Your task to perform on an android device: change text size in settings app Image 0: 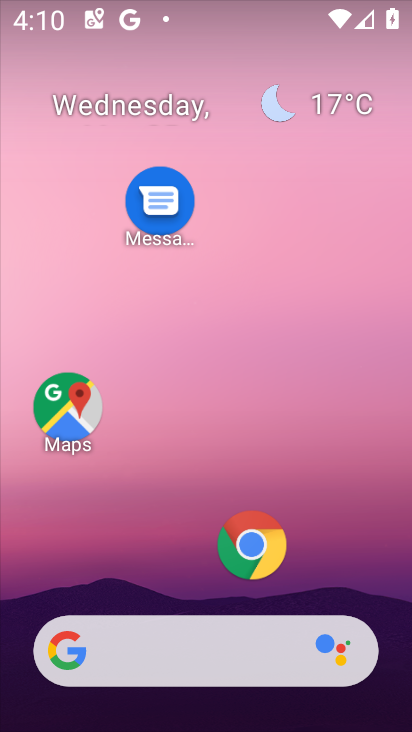
Step 0: drag from (335, 551) to (180, 42)
Your task to perform on an android device: change text size in settings app Image 1: 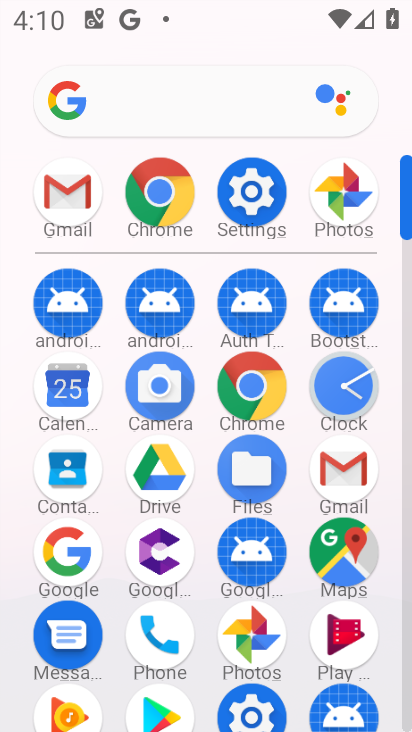
Step 1: click (248, 208)
Your task to perform on an android device: change text size in settings app Image 2: 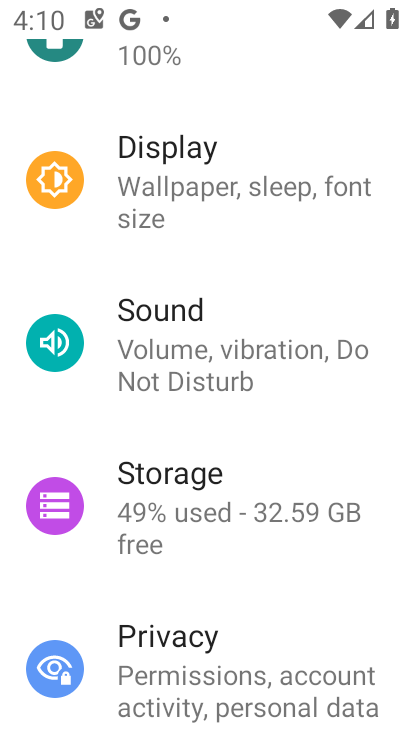
Step 2: drag from (241, 594) to (259, 122)
Your task to perform on an android device: change text size in settings app Image 3: 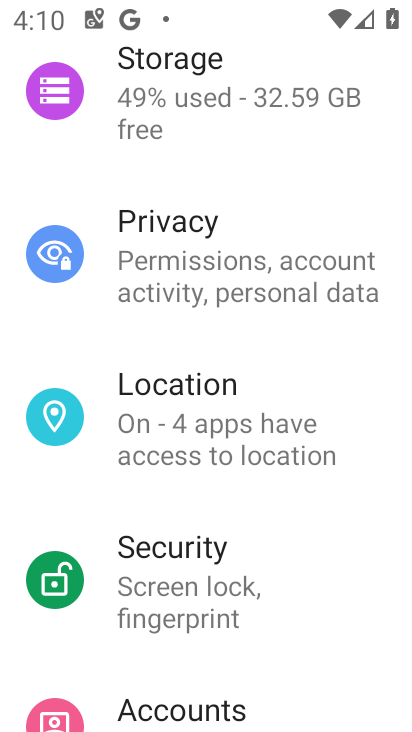
Step 3: drag from (252, 190) to (264, 566)
Your task to perform on an android device: change text size in settings app Image 4: 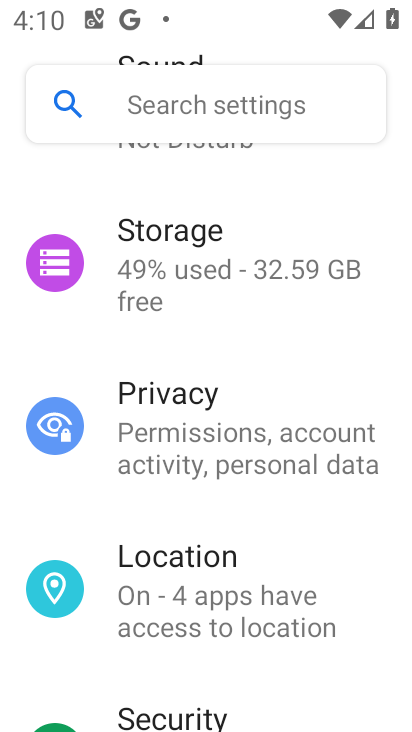
Step 4: drag from (241, 317) to (250, 645)
Your task to perform on an android device: change text size in settings app Image 5: 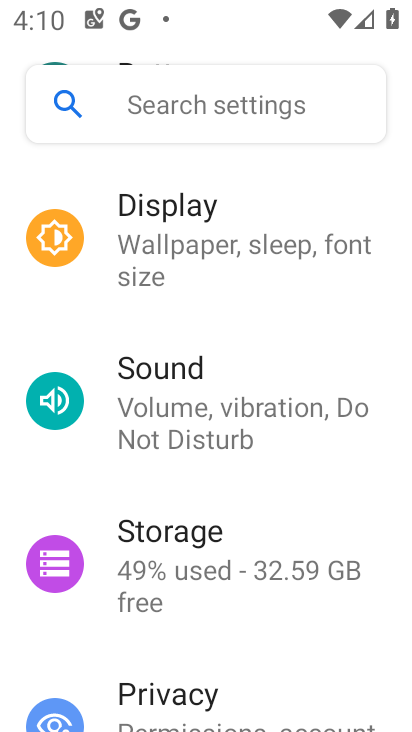
Step 5: click (259, 237)
Your task to perform on an android device: change text size in settings app Image 6: 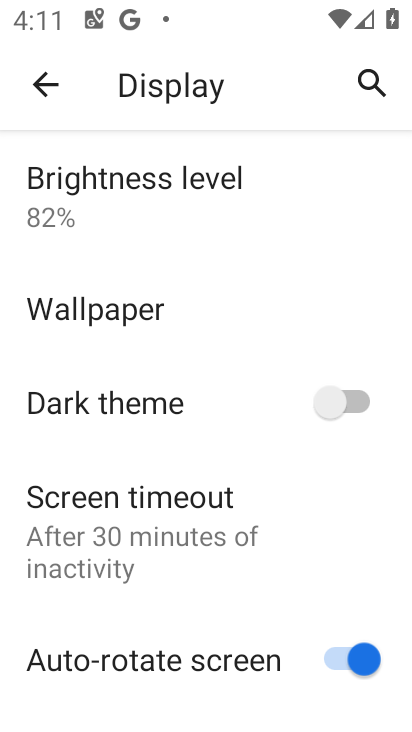
Step 6: drag from (152, 579) to (202, 201)
Your task to perform on an android device: change text size in settings app Image 7: 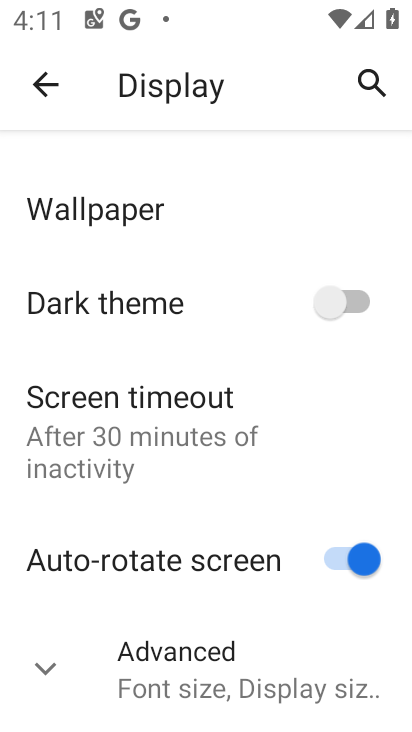
Step 7: click (261, 692)
Your task to perform on an android device: change text size in settings app Image 8: 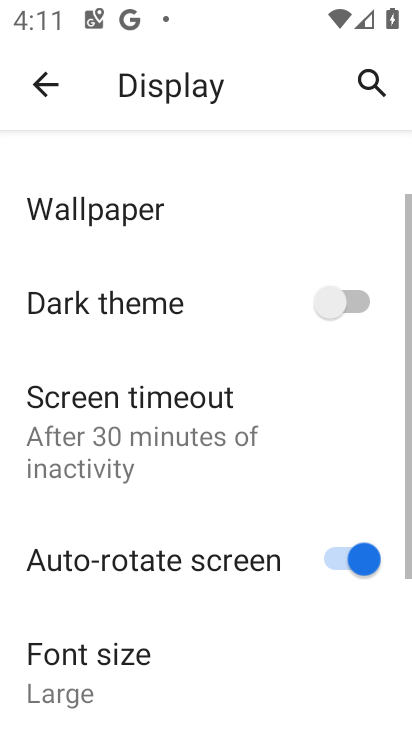
Step 8: drag from (234, 600) to (250, 165)
Your task to perform on an android device: change text size in settings app Image 9: 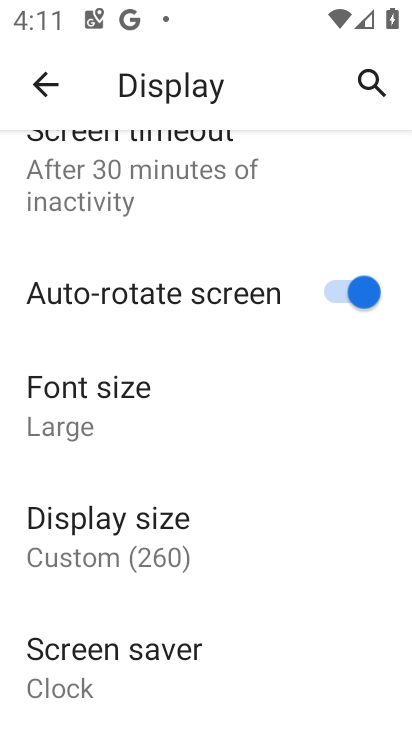
Step 9: click (98, 421)
Your task to perform on an android device: change text size in settings app Image 10: 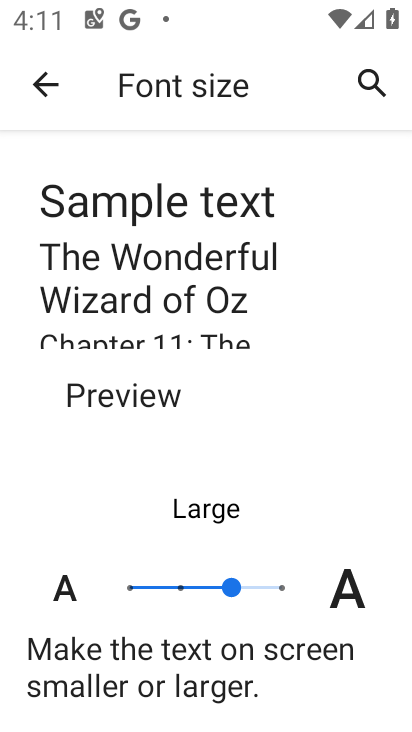
Step 10: click (179, 585)
Your task to perform on an android device: change text size in settings app Image 11: 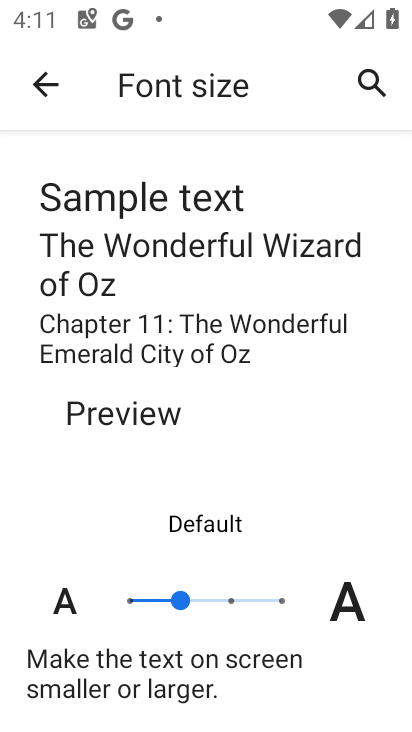
Step 11: click (132, 602)
Your task to perform on an android device: change text size in settings app Image 12: 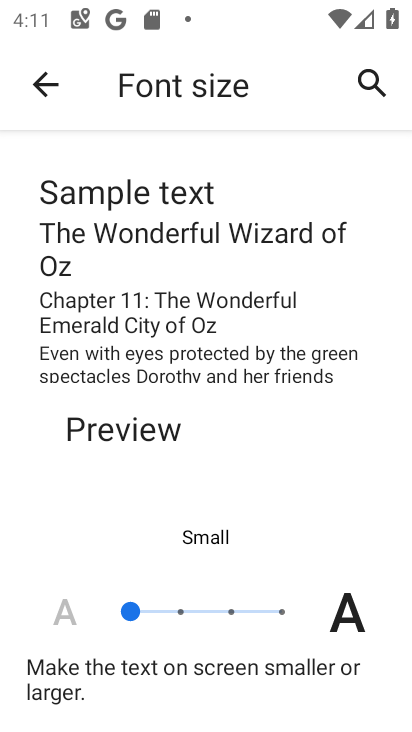
Step 12: task complete